Your task to perform on an android device: Open Google Chrome Image 0: 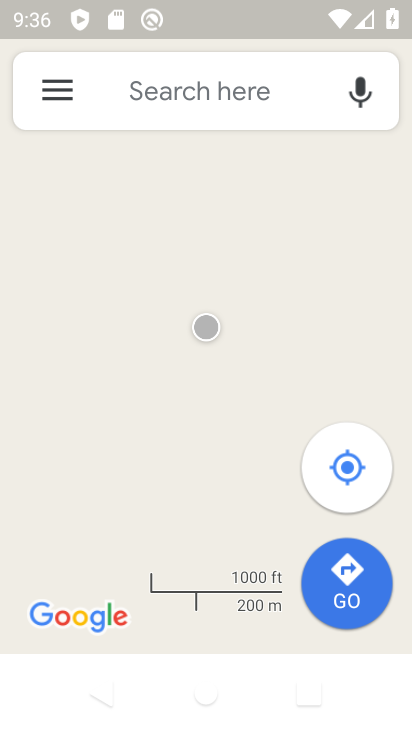
Step 0: press home button
Your task to perform on an android device: Open Google Chrome Image 1: 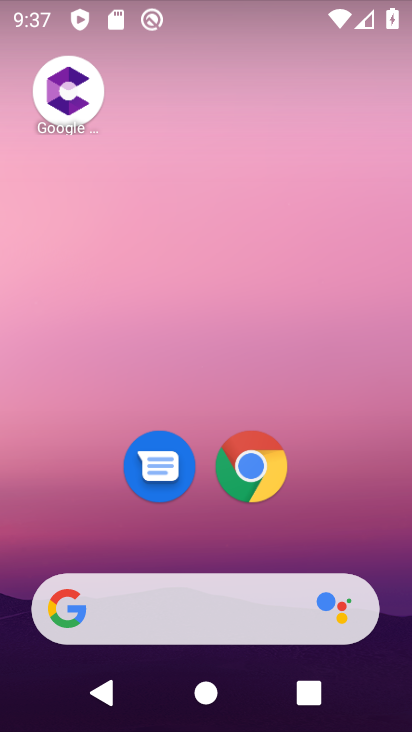
Step 1: click (284, 458)
Your task to perform on an android device: Open Google Chrome Image 2: 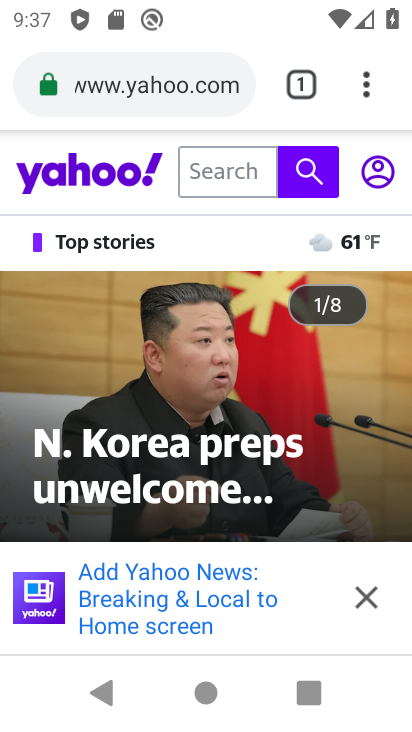
Step 2: task complete